Your task to perform on an android device: check out phone information Image 0: 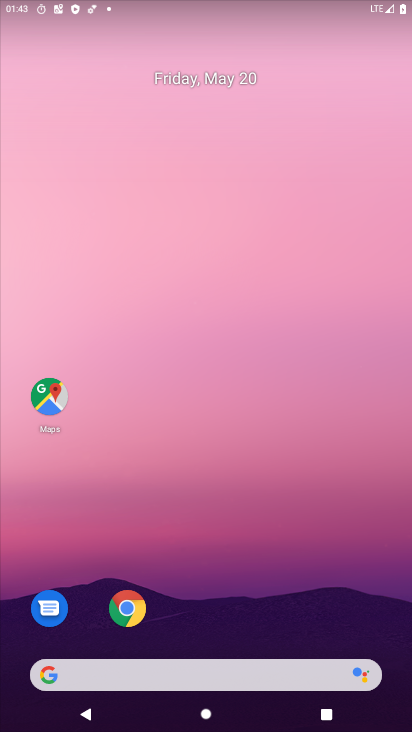
Step 0: drag from (339, 617) to (305, 83)
Your task to perform on an android device: check out phone information Image 1: 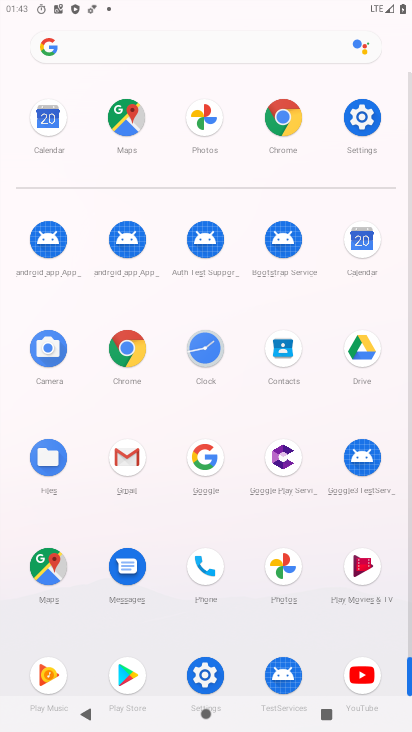
Step 1: click (224, 567)
Your task to perform on an android device: check out phone information Image 2: 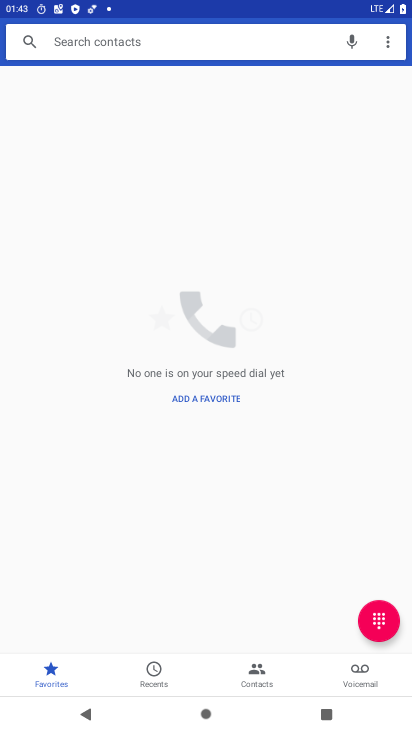
Step 2: task complete